Your task to perform on an android device: Go to battery settings Image 0: 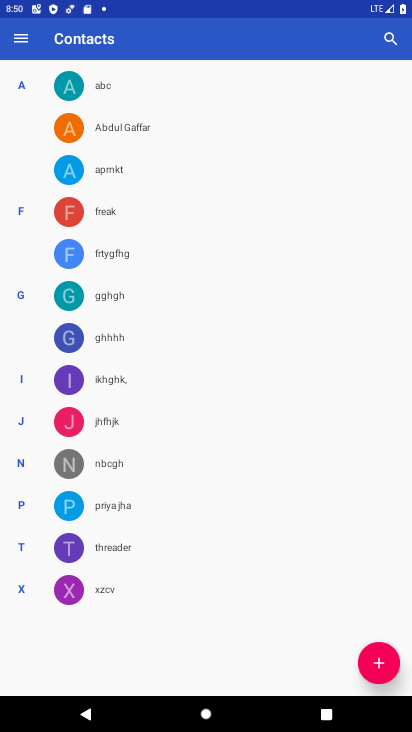
Step 0: press home button
Your task to perform on an android device: Go to battery settings Image 1: 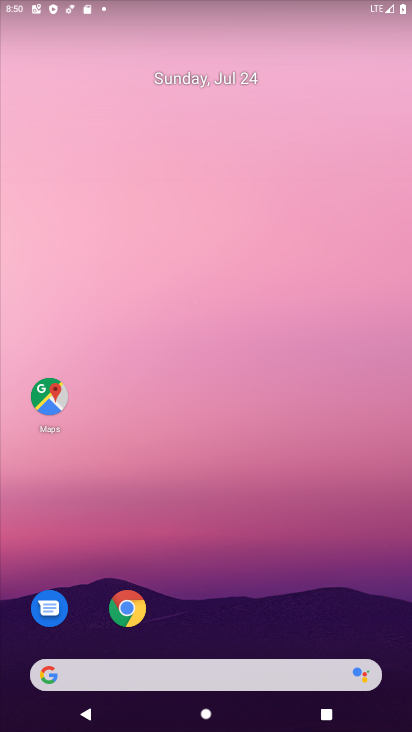
Step 1: drag from (243, 605) to (56, 0)
Your task to perform on an android device: Go to battery settings Image 2: 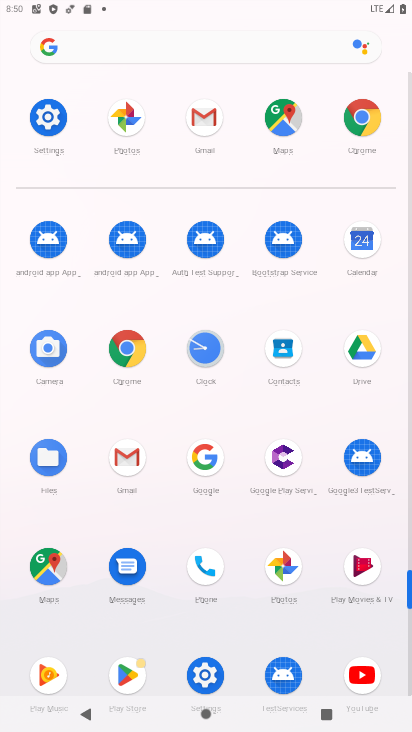
Step 2: click (60, 128)
Your task to perform on an android device: Go to battery settings Image 3: 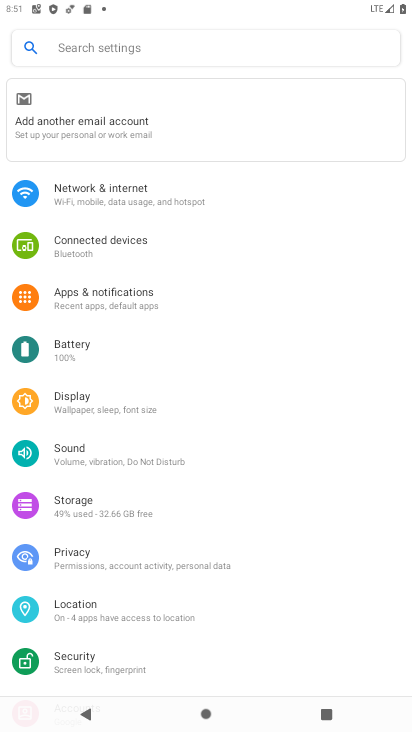
Step 3: click (89, 352)
Your task to perform on an android device: Go to battery settings Image 4: 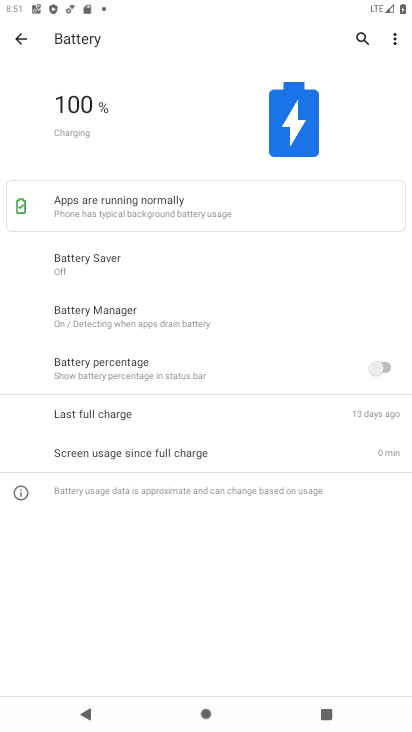
Step 4: task complete